Your task to perform on an android device: Go to location settings Image 0: 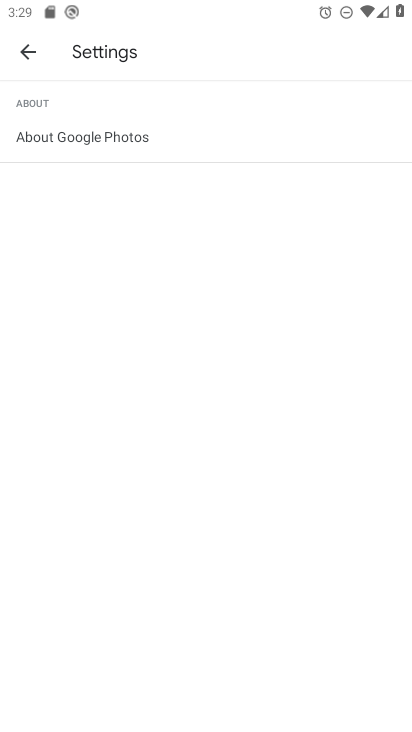
Step 0: press home button
Your task to perform on an android device: Go to location settings Image 1: 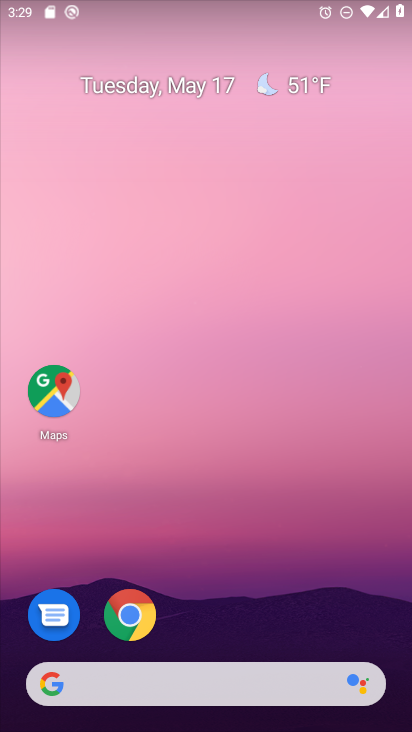
Step 1: drag from (222, 646) to (247, 89)
Your task to perform on an android device: Go to location settings Image 2: 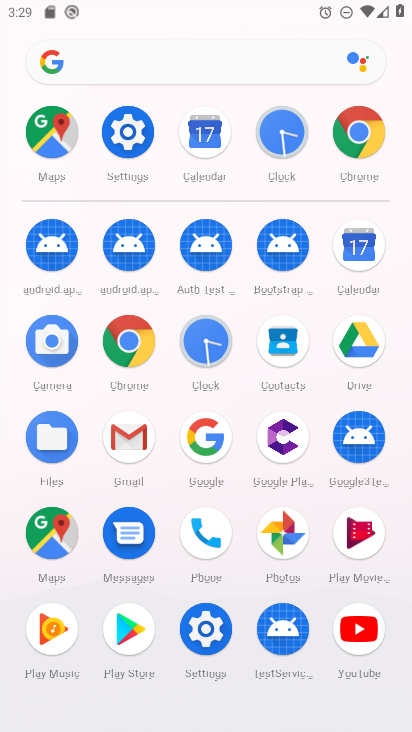
Step 2: click (200, 622)
Your task to perform on an android device: Go to location settings Image 3: 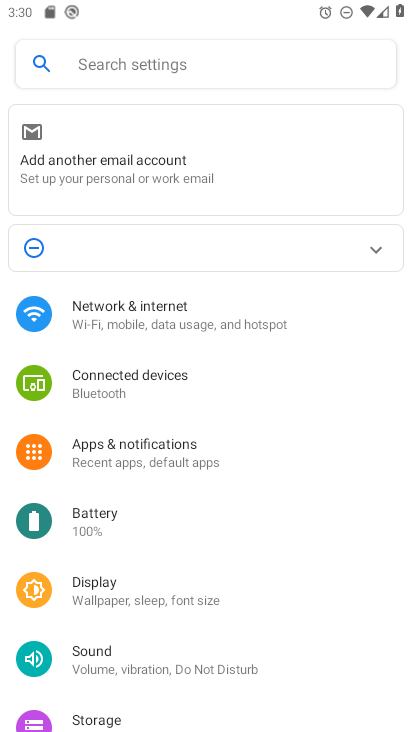
Step 3: drag from (202, 681) to (216, 302)
Your task to perform on an android device: Go to location settings Image 4: 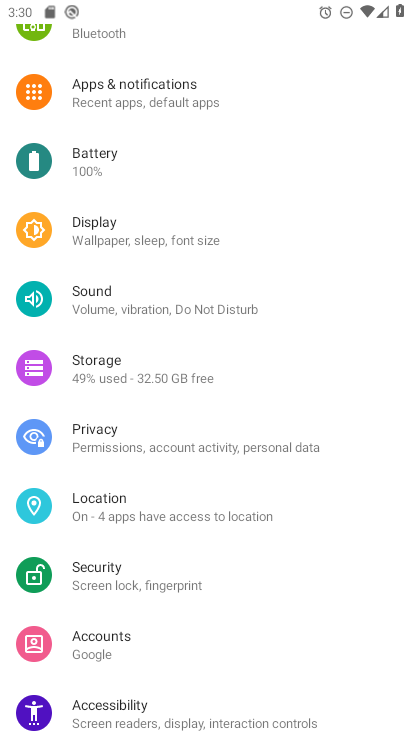
Step 4: click (151, 495)
Your task to perform on an android device: Go to location settings Image 5: 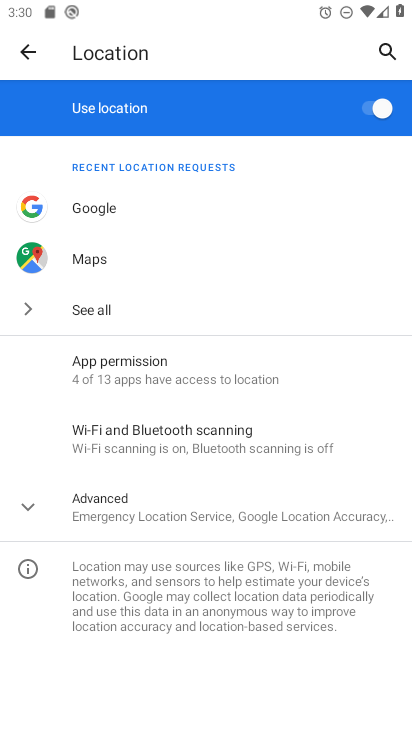
Step 5: click (26, 502)
Your task to perform on an android device: Go to location settings Image 6: 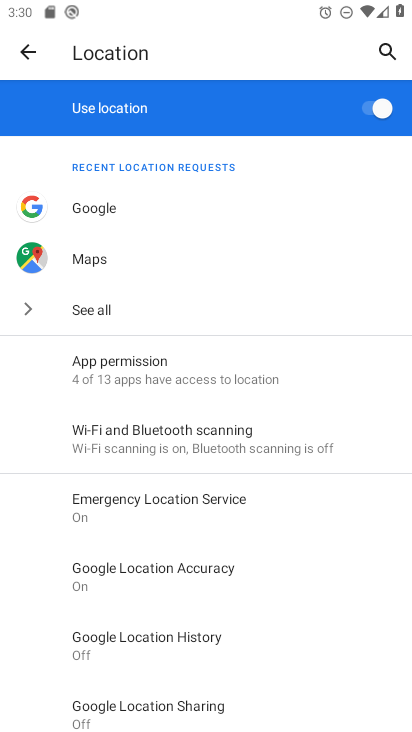
Step 6: task complete